Your task to perform on an android device: Go to Reddit.com Image 0: 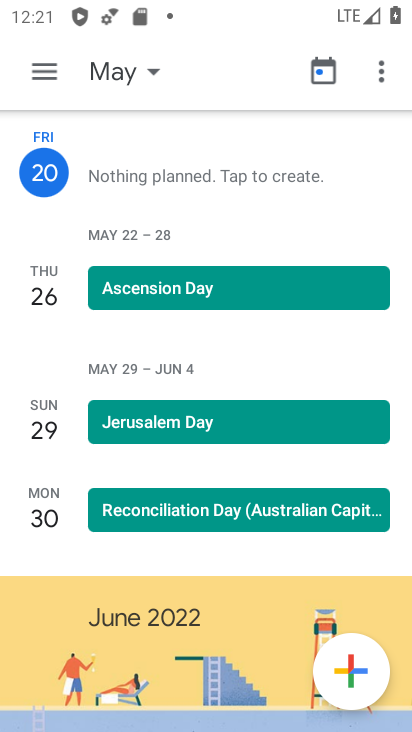
Step 0: press home button
Your task to perform on an android device: Go to Reddit.com Image 1: 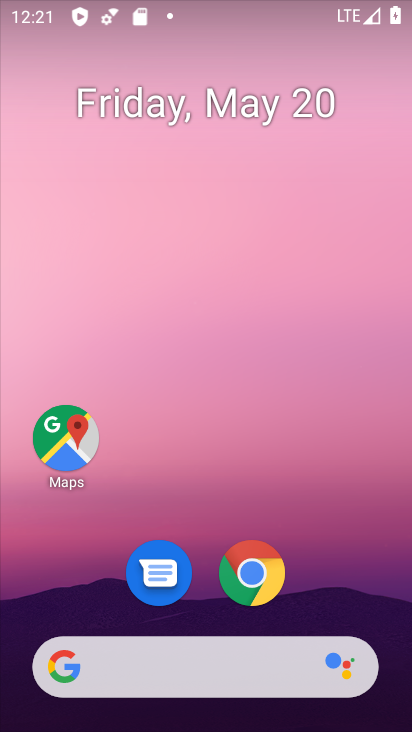
Step 1: drag from (209, 620) to (230, 39)
Your task to perform on an android device: Go to Reddit.com Image 2: 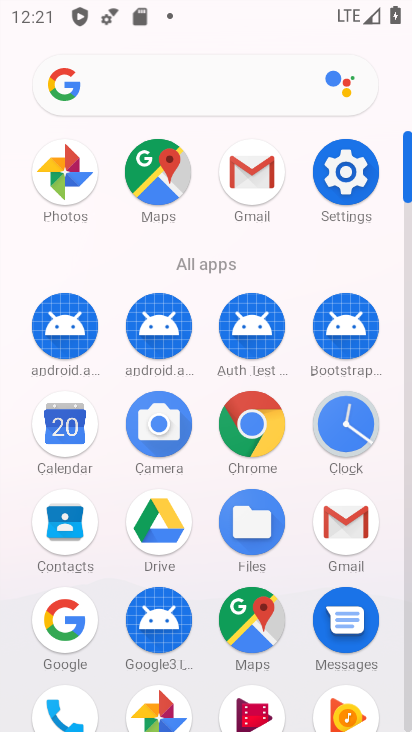
Step 2: drag from (257, 654) to (272, 470)
Your task to perform on an android device: Go to Reddit.com Image 3: 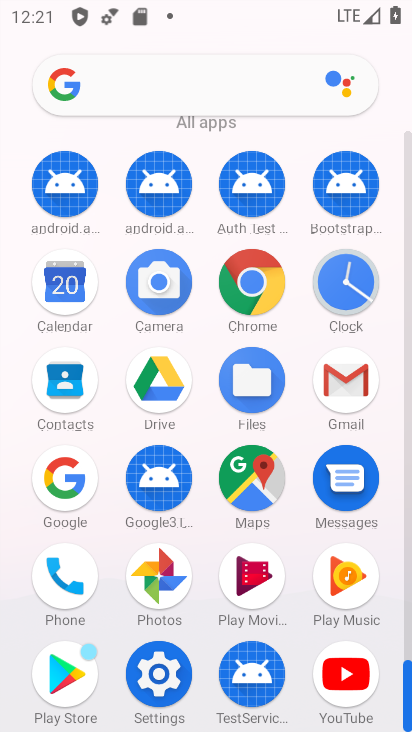
Step 3: click (259, 297)
Your task to perform on an android device: Go to Reddit.com Image 4: 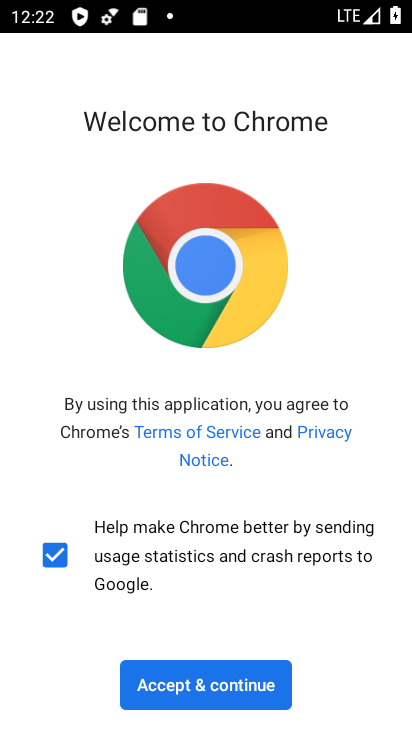
Step 4: click (247, 685)
Your task to perform on an android device: Go to Reddit.com Image 5: 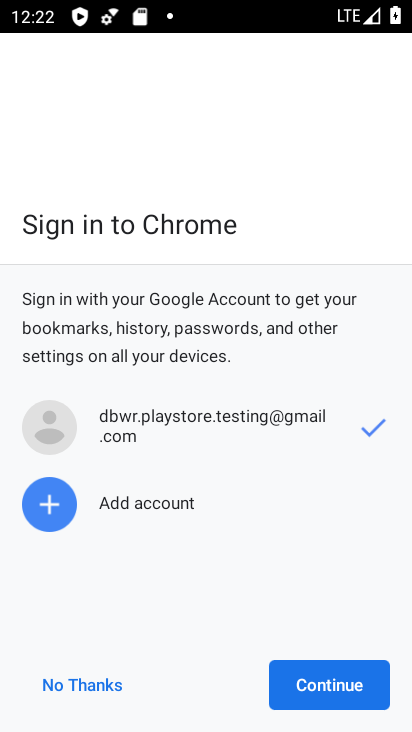
Step 5: click (374, 674)
Your task to perform on an android device: Go to Reddit.com Image 6: 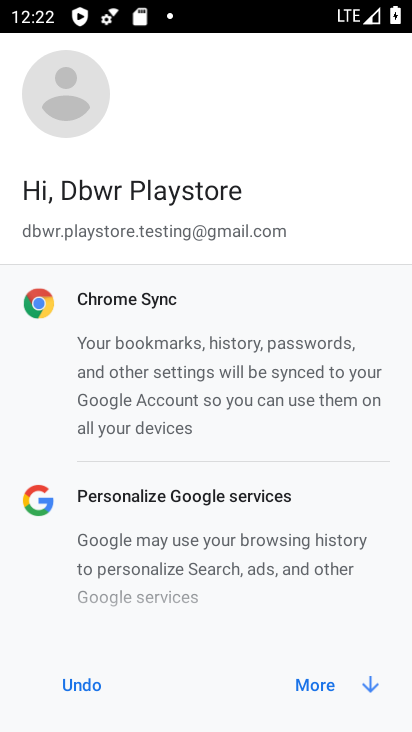
Step 6: click (343, 675)
Your task to perform on an android device: Go to Reddit.com Image 7: 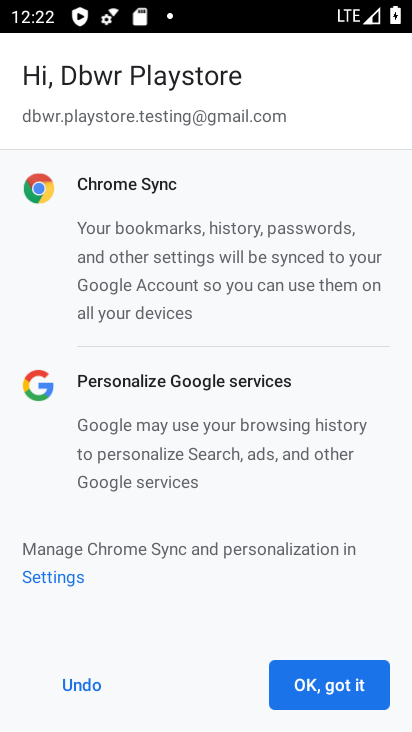
Step 7: click (325, 695)
Your task to perform on an android device: Go to Reddit.com Image 8: 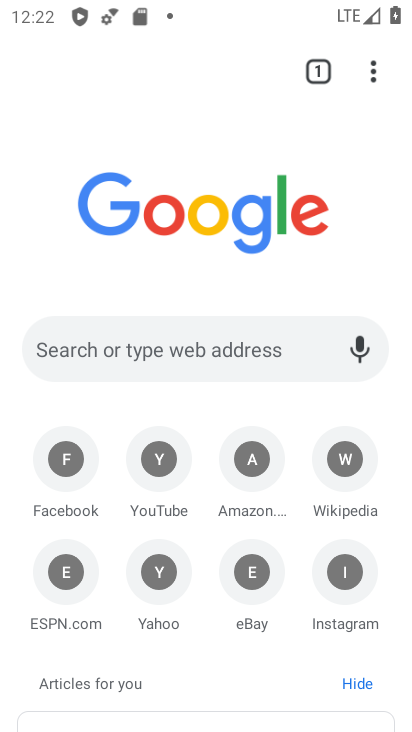
Step 8: click (179, 345)
Your task to perform on an android device: Go to Reddit.com Image 9: 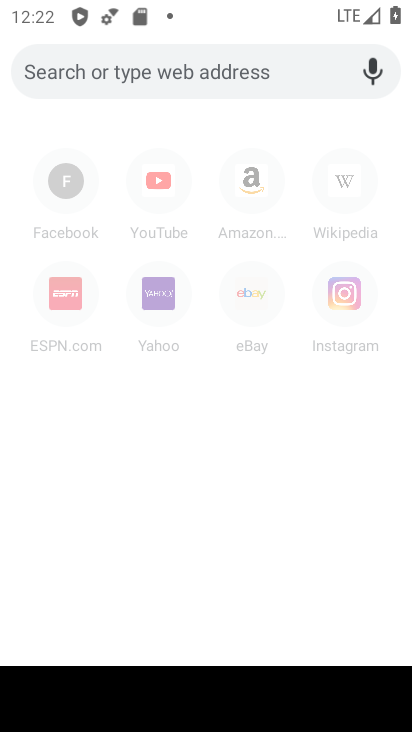
Step 9: type "Reddit.com"
Your task to perform on an android device: Go to Reddit.com Image 10: 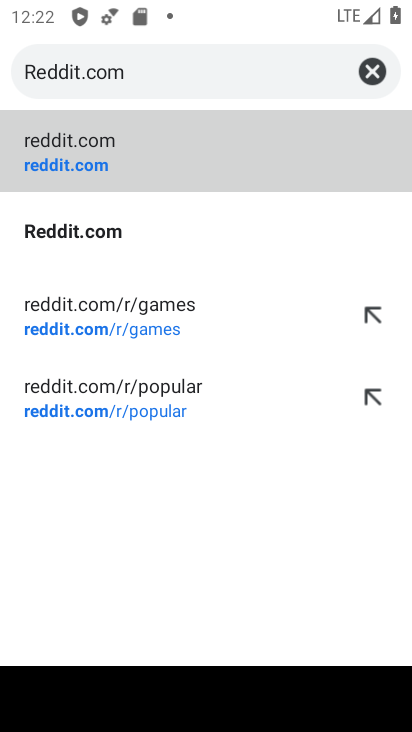
Step 10: click (85, 176)
Your task to perform on an android device: Go to Reddit.com Image 11: 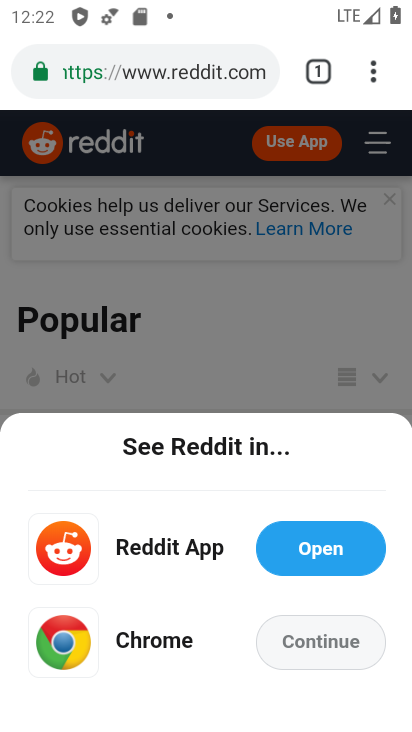
Step 11: task complete